Your task to perform on an android device: Open location settings Image 0: 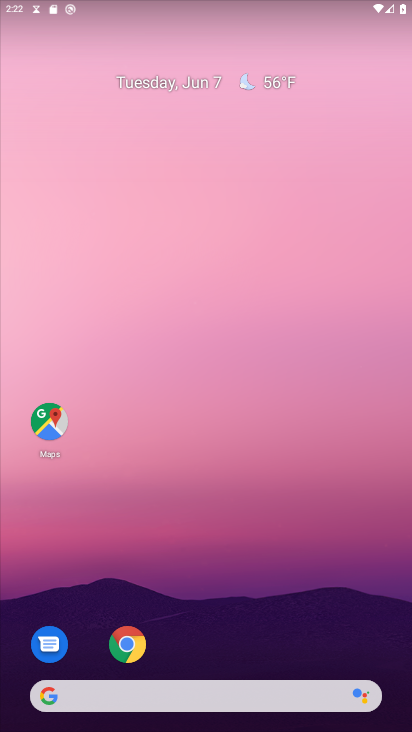
Step 0: press home button
Your task to perform on an android device: Open location settings Image 1: 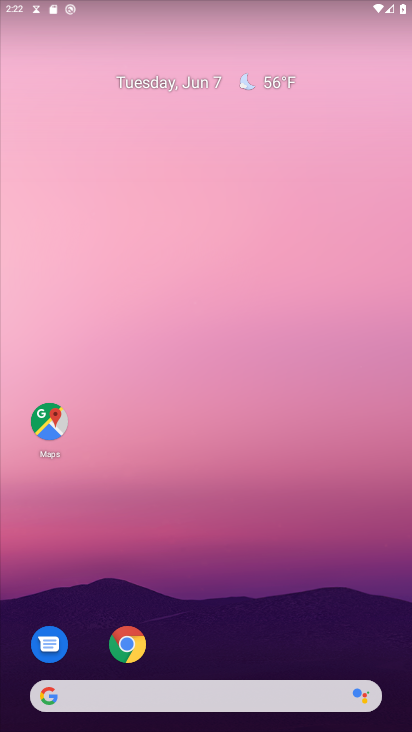
Step 1: drag from (213, 368) to (220, 147)
Your task to perform on an android device: Open location settings Image 2: 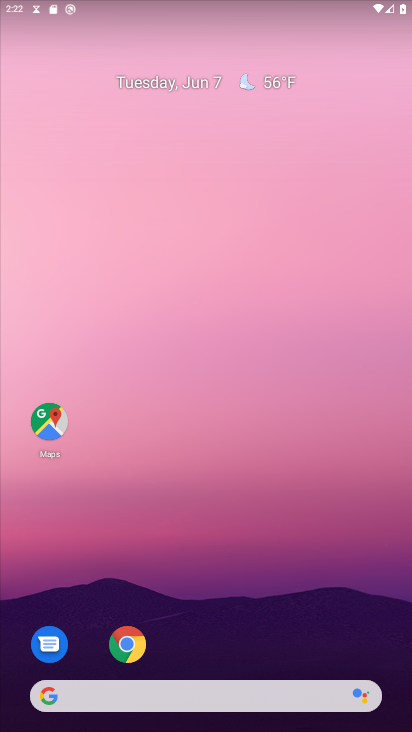
Step 2: drag from (215, 650) to (219, 106)
Your task to perform on an android device: Open location settings Image 3: 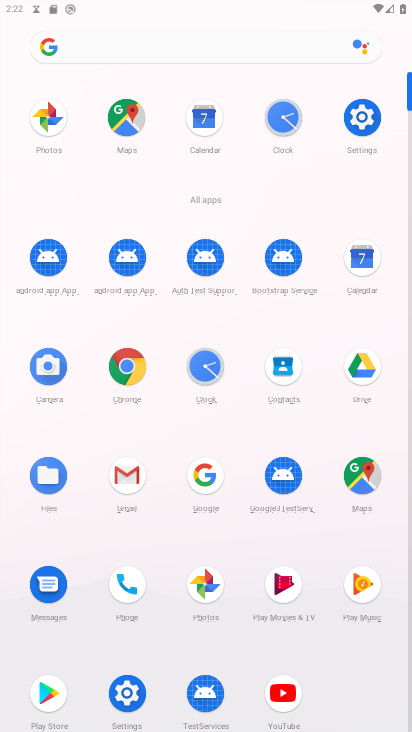
Step 3: click (234, 0)
Your task to perform on an android device: Open location settings Image 4: 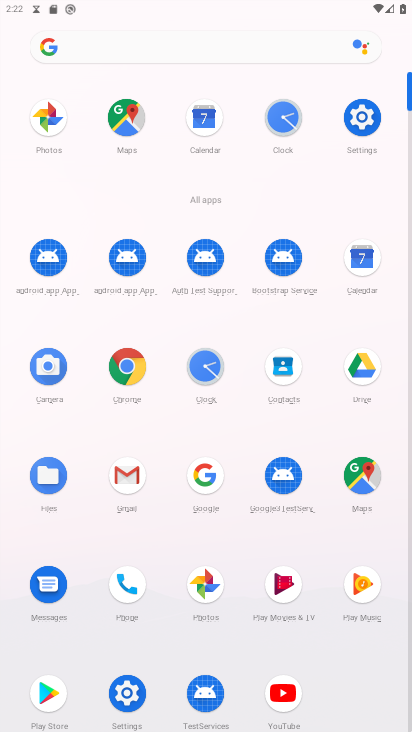
Step 4: click (358, 112)
Your task to perform on an android device: Open location settings Image 5: 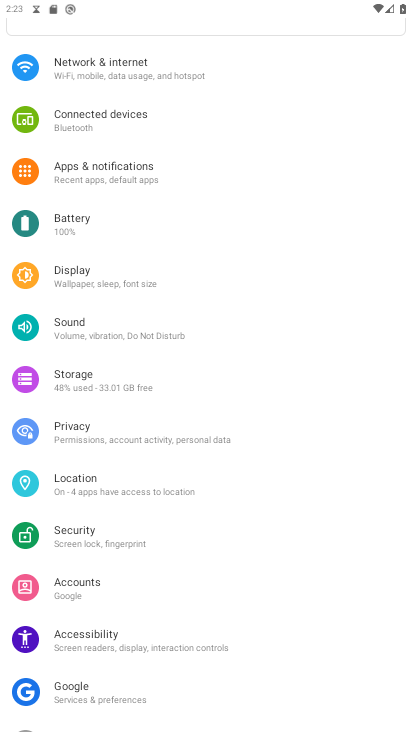
Step 5: click (110, 477)
Your task to perform on an android device: Open location settings Image 6: 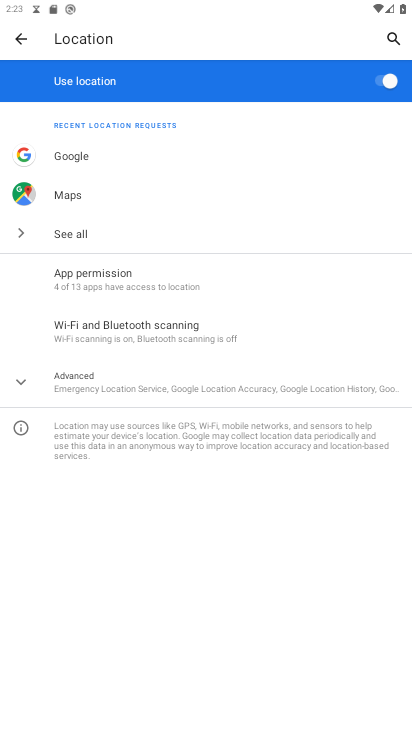
Step 6: click (21, 379)
Your task to perform on an android device: Open location settings Image 7: 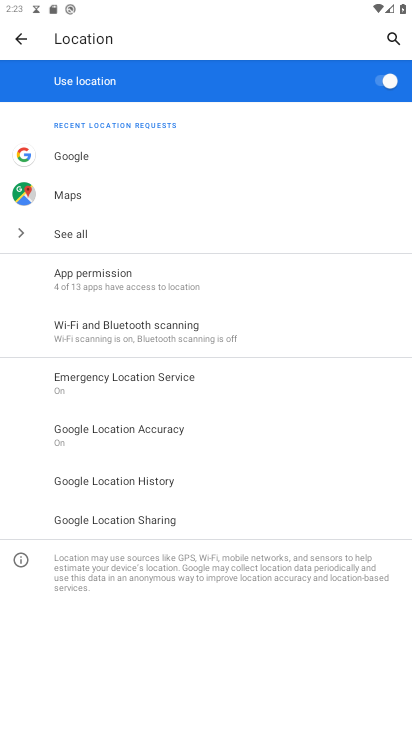
Step 7: task complete